Your task to perform on an android device: toggle data saver in the chrome app Image 0: 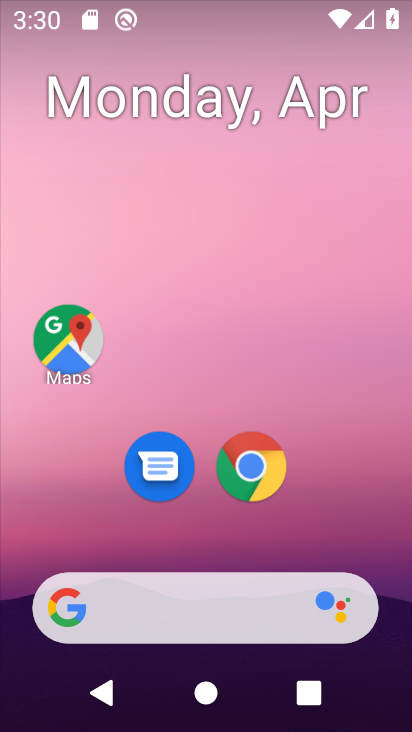
Step 0: click (251, 470)
Your task to perform on an android device: toggle data saver in the chrome app Image 1: 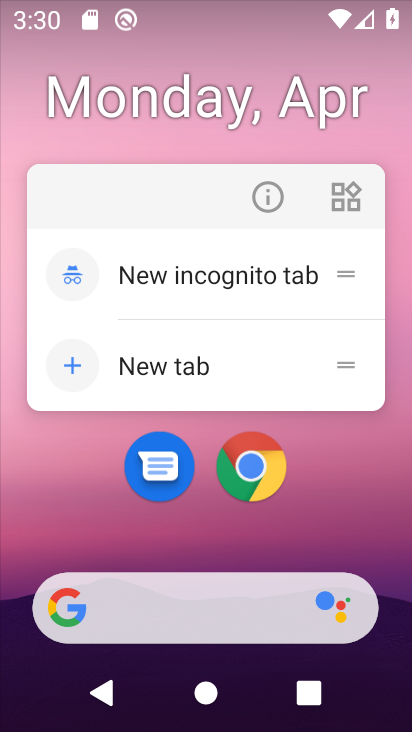
Step 1: click (260, 198)
Your task to perform on an android device: toggle data saver in the chrome app Image 2: 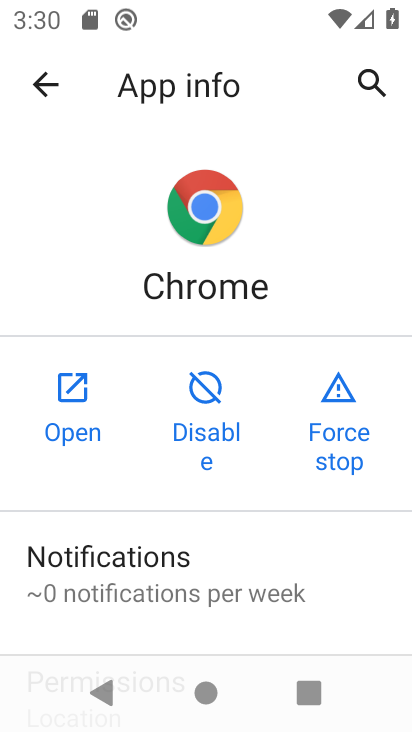
Step 2: click (81, 426)
Your task to perform on an android device: toggle data saver in the chrome app Image 3: 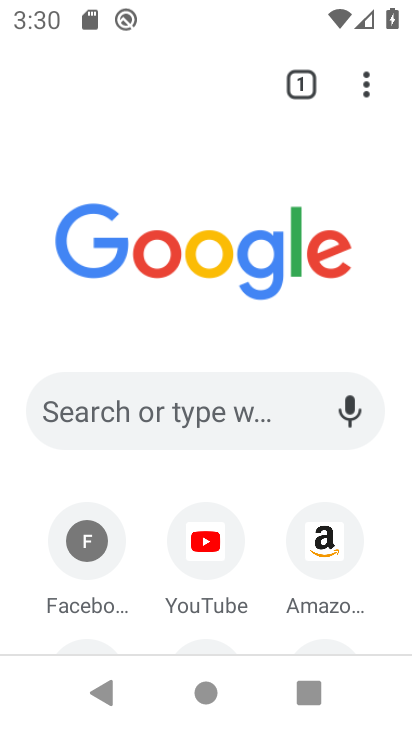
Step 3: click (367, 103)
Your task to perform on an android device: toggle data saver in the chrome app Image 4: 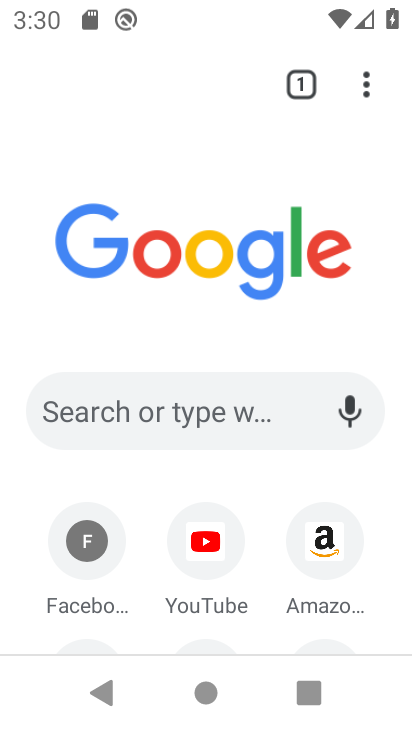
Step 4: click (369, 90)
Your task to perform on an android device: toggle data saver in the chrome app Image 5: 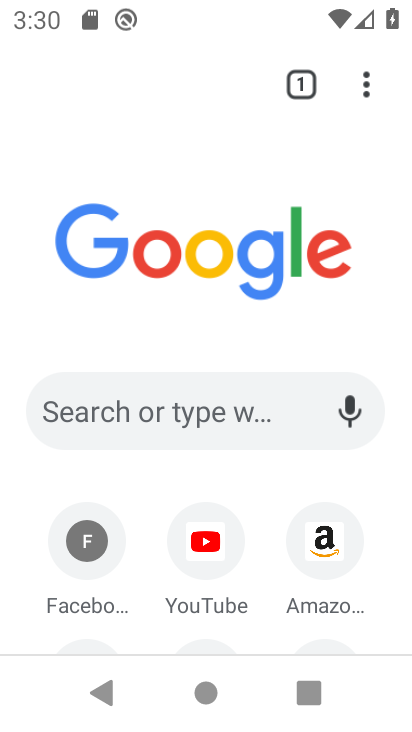
Step 5: click (367, 93)
Your task to perform on an android device: toggle data saver in the chrome app Image 6: 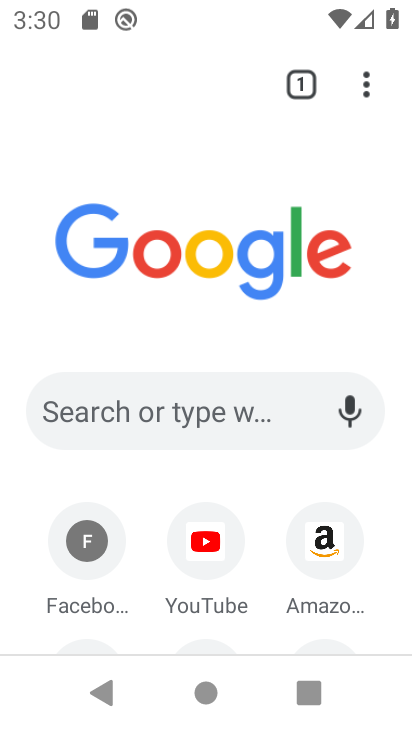
Step 6: click (371, 88)
Your task to perform on an android device: toggle data saver in the chrome app Image 7: 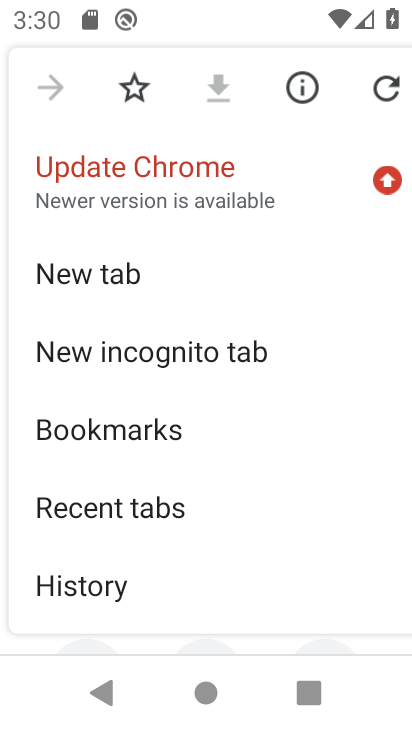
Step 7: drag from (211, 554) to (211, 200)
Your task to perform on an android device: toggle data saver in the chrome app Image 8: 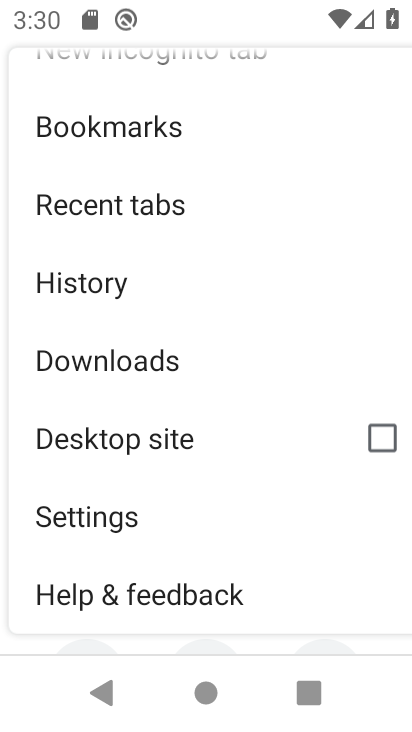
Step 8: click (155, 519)
Your task to perform on an android device: toggle data saver in the chrome app Image 9: 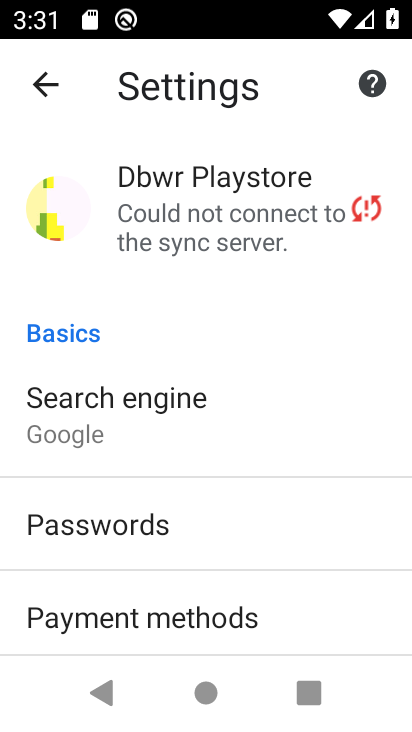
Step 9: drag from (231, 525) to (266, 193)
Your task to perform on an android device: toggle data saver in the chrome app Image 10: 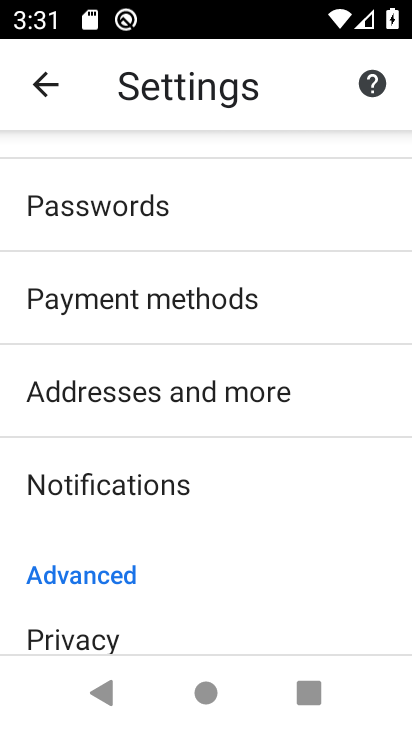
Step 10: drag from (289, 537) to (290, 154)
Your task to perform on an android device: toggle data saver in the chrome app Image 11: 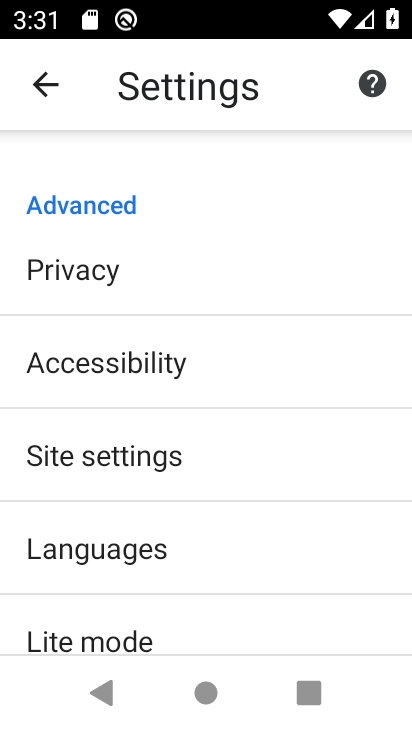
Step 11: click (248, 631)
Your task to perform on an android device: toggle data saver in the chrome app Image 12: 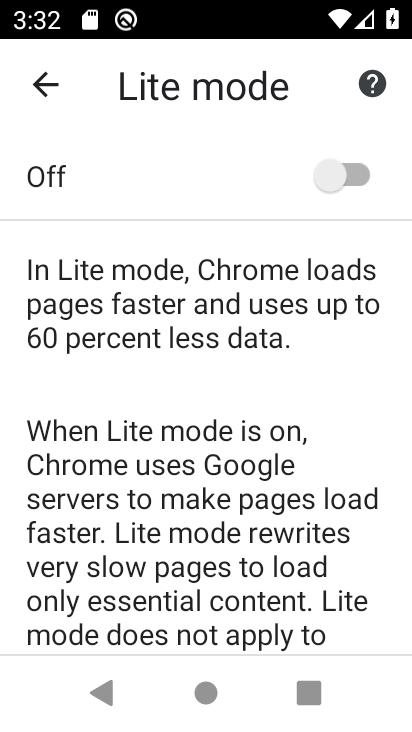
Step 12: click (313, 188)
Your task to perform on an android device: toggle data saver in the chrome app Image 13: 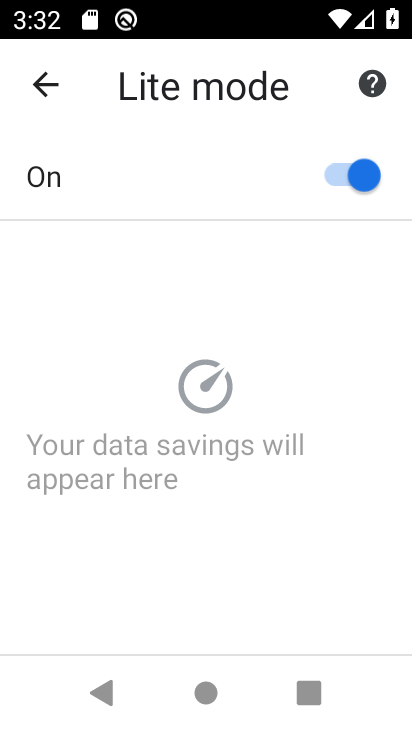
Step 13: task complete